Your task to perform on an android device: Open ESPN.com Image 0: 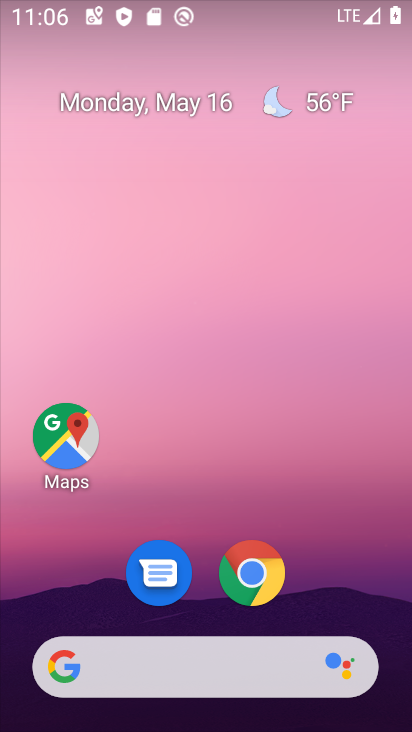
Step 0: click (252, 687)
Your task to perform on an android device: Open ESPN.com Image 1: 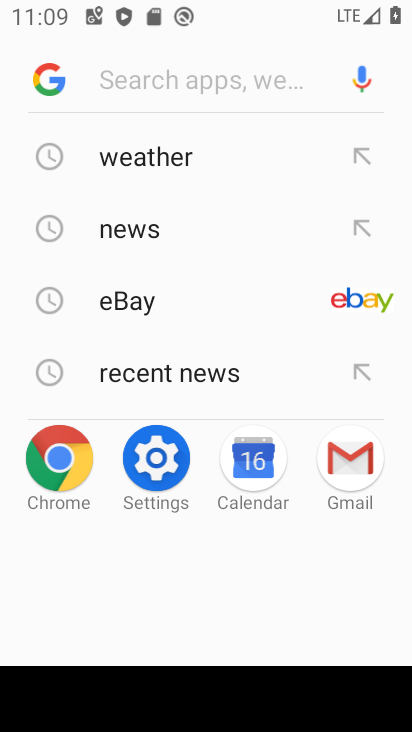
Step 1: type "espn.com"
Your task to perform on an android device: Open ESPN.com Image 2: 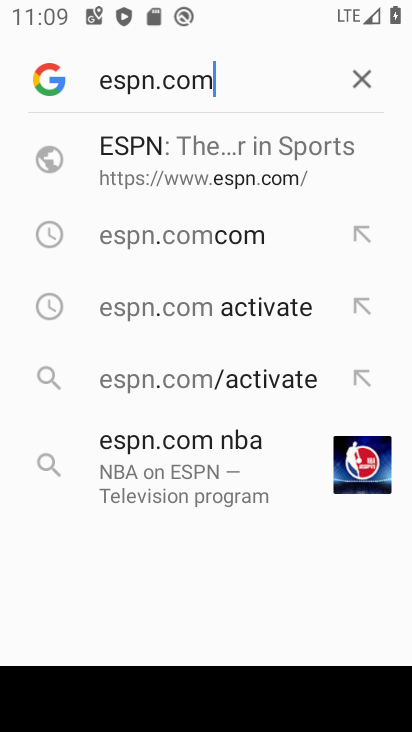
Step 2: click (283, 161)
Your task to perform on an android device: Open ESPN.com Image 3: 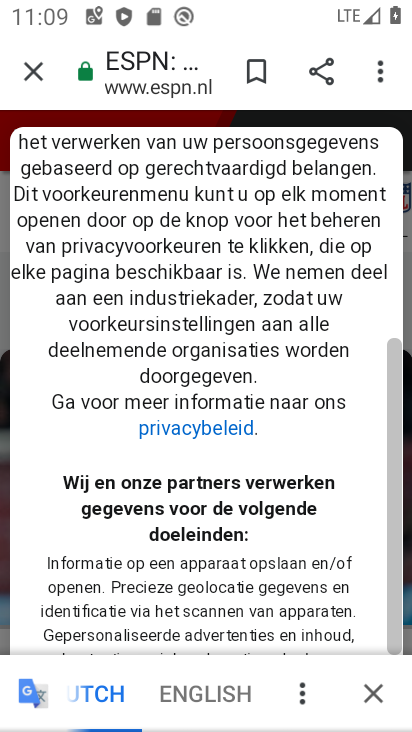
Step 3: task complete